Your task to perform on an android device: add a contact in the contacts app Image 0: 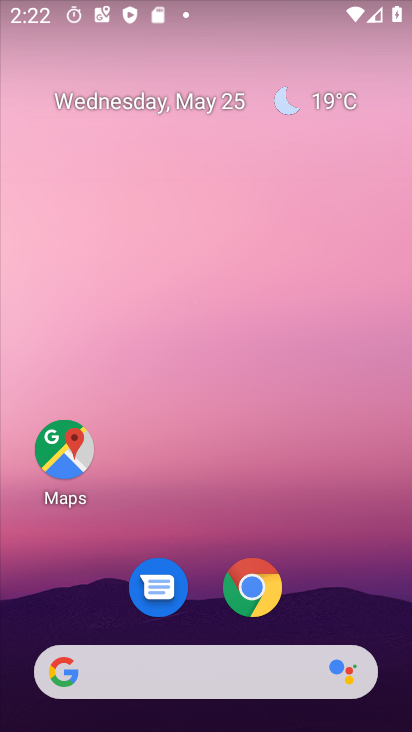
Step 0: drag from (200, 626) to (274, 41)
Your task to perform on an android device: add a contact in the contacts app Image 1: 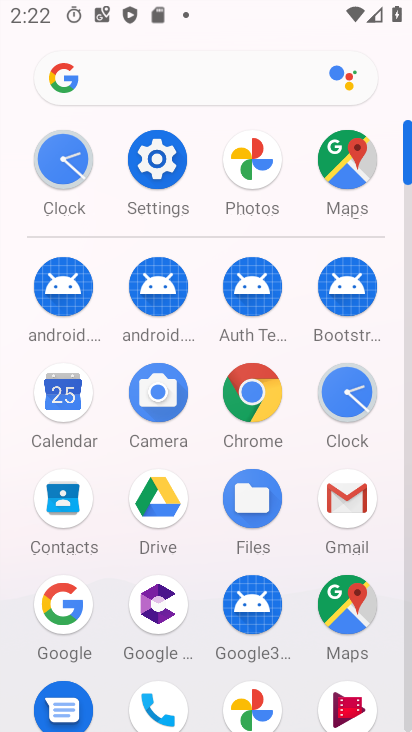
Step 1: click (71, 498)
Your task to perform on an android device: add a contact in the contacts app Image 2: 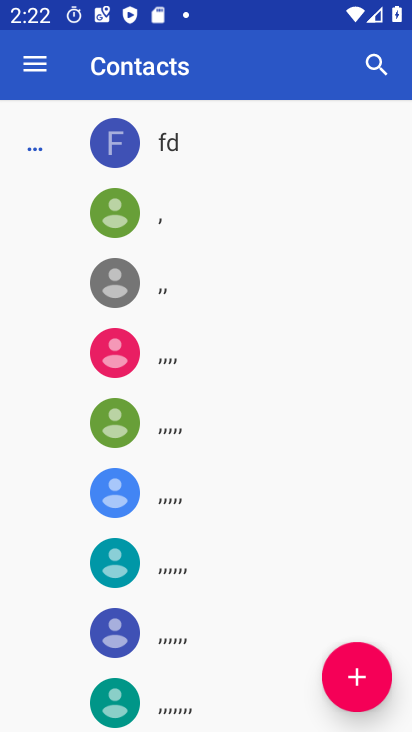
Step 2: click (358, 685)
Your task to perform on an android device: add a contact in the contacts app Image 3: 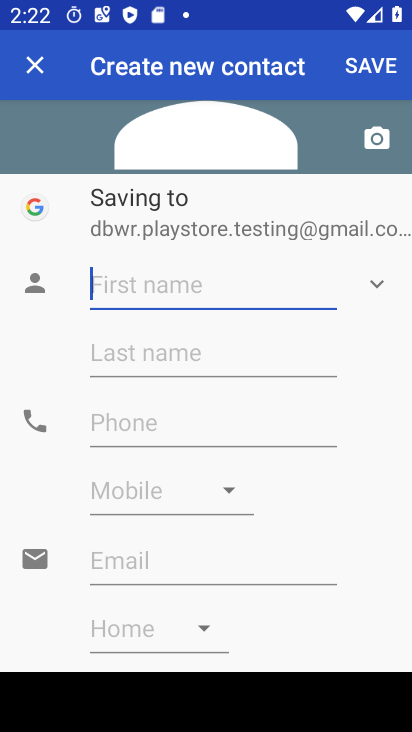
Step 3: type "ytxdyt"
Your task to perform on an android device: add a contact in the contacts app Image 4: 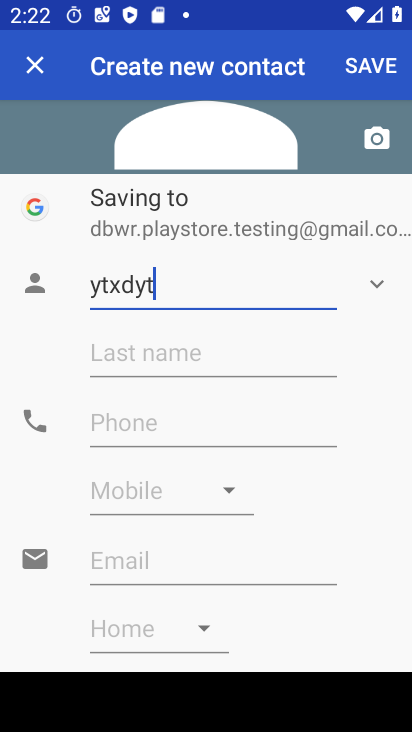
Step 4: click (371, 61)
Your task to perform on an android device: add a contact in the contacts app Image 5: 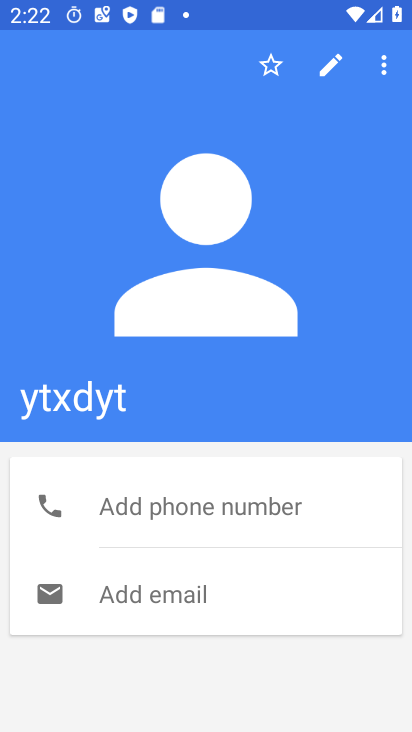
Step 5: task complete